Your task to perform on an android device: star an email in the gmail app Image 0: 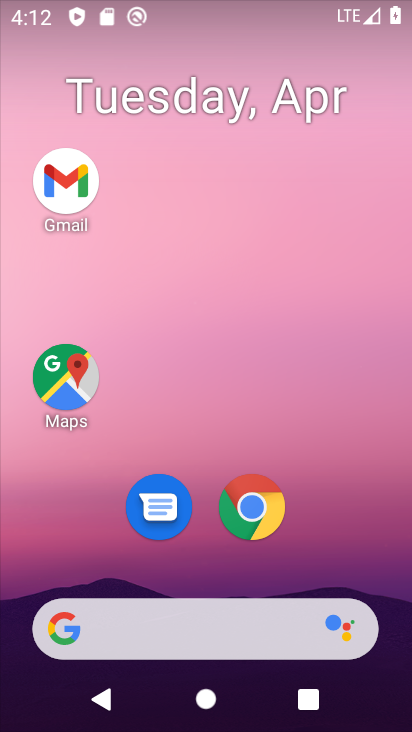
Step 0: click (77, 189)
Your task to perform on an android device: star an email in the gmail app Image 1: 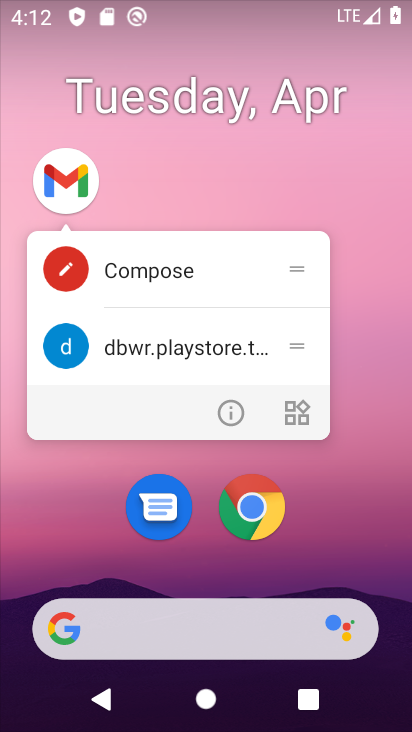
Step 1: click (71, 174)
Your task to perform on an android device: star an email in the gmail app Image 2: 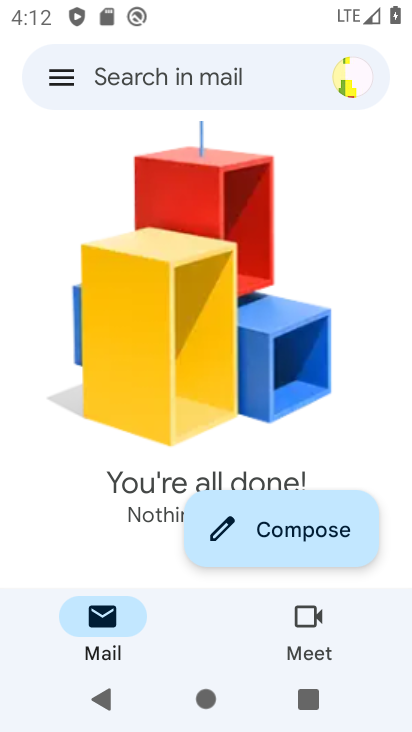
Step 2: click (64, 77)
Your task to perform on an android device: star an email in the gmail app Image 3: 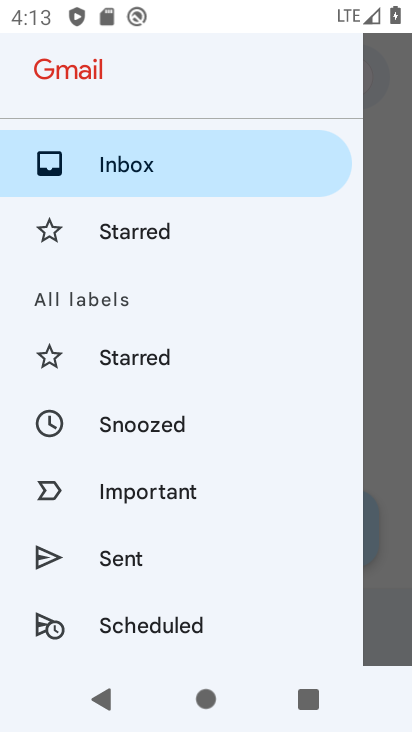
Step 3: drag from (198, 576) to (221, 172)
Your task to perform on an android device: star an email in the gmail app Image 4: 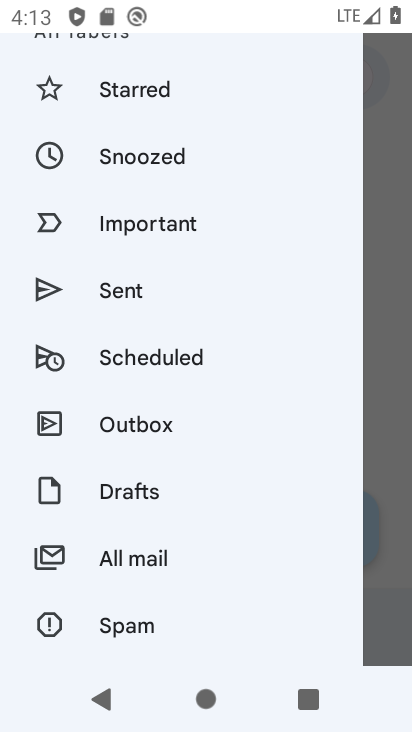
Step 4: click (172, 547)
Your task to perform on an android device: star an email in the gmail app Image 5: 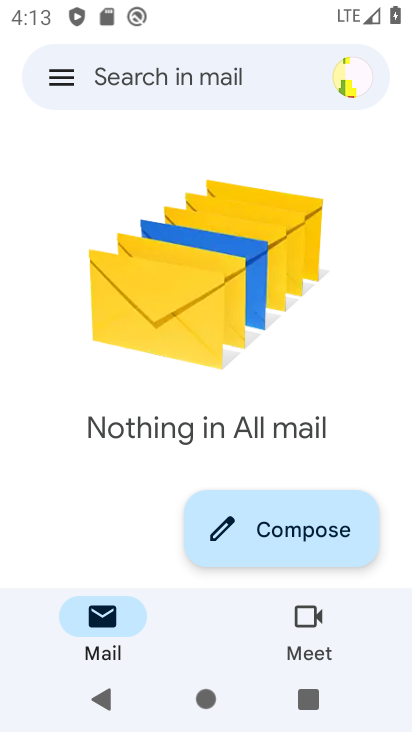
Step 5: task complete